Your task to perform on an android device: Open display settings Image 0: 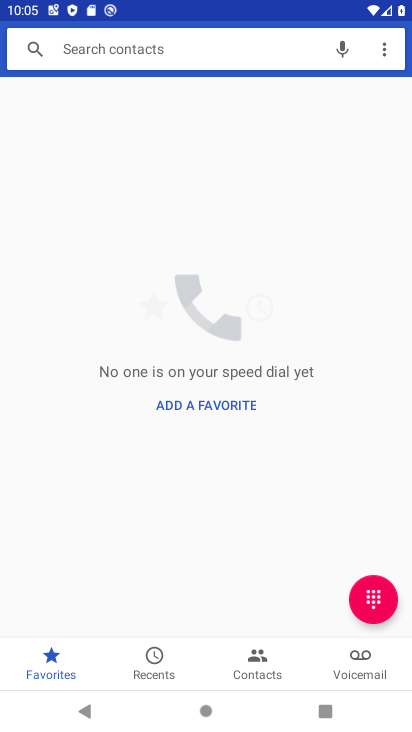
Step 0: press home button
Your task to perform on an android device: Open display settings Image 1: 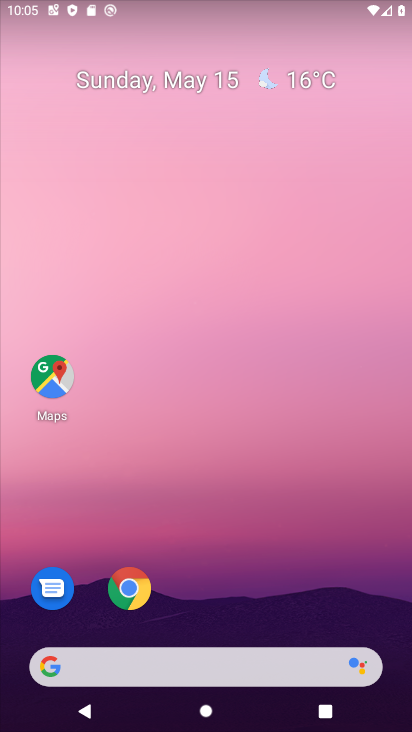
Step 1: drag from (208, 539) to (286, 149)
Your task to perform on an android device: Open display settings Image 2: 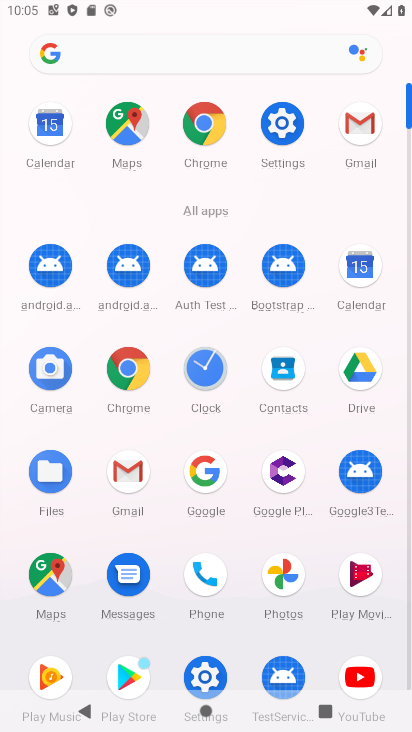
Step 2: click (269, 133)
Your task to perform on an android device: Open display settings Image 3: 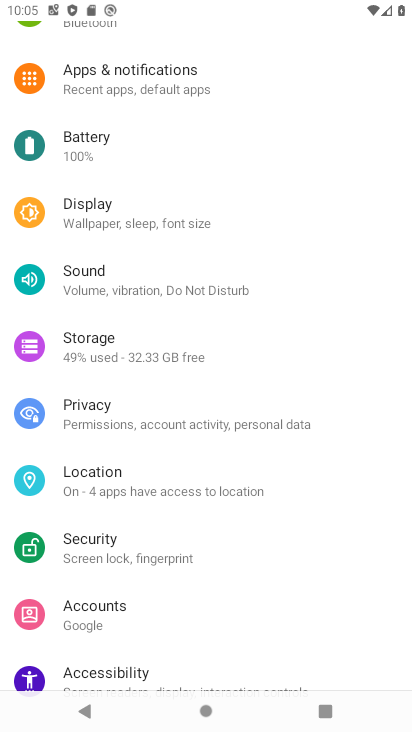
Step 3: click (139, 218)
Your task to perform on an android device: Open display settings Image 4: 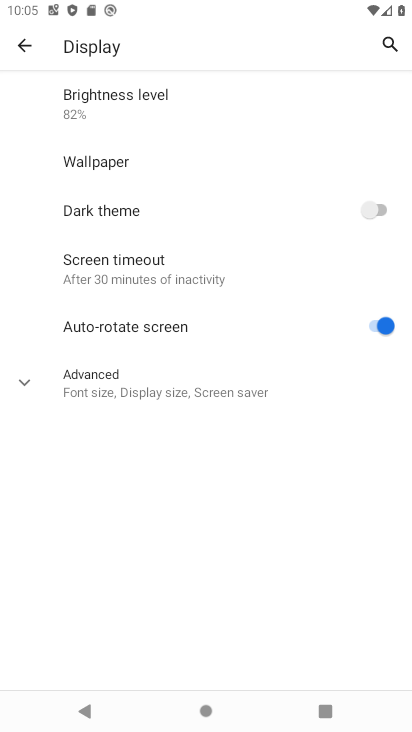
Step 4: task complete